Your task to perform on an android device: turn on bluetooth scan Image 0: 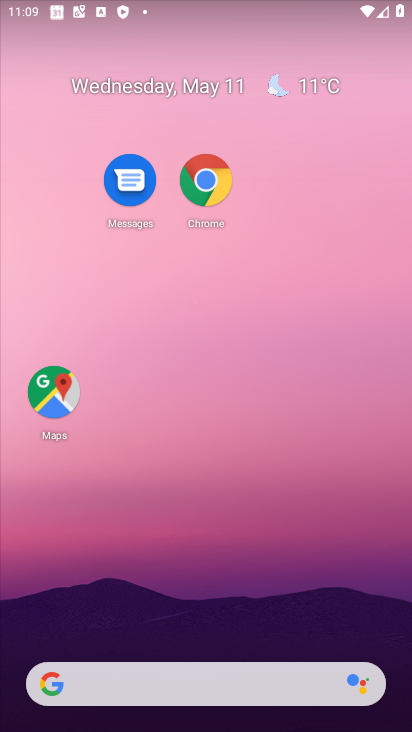
Step 0: drag from (246, 599) to (256, 226)
Your task to perform on an android device: turn on bluetooth scan Image 1: 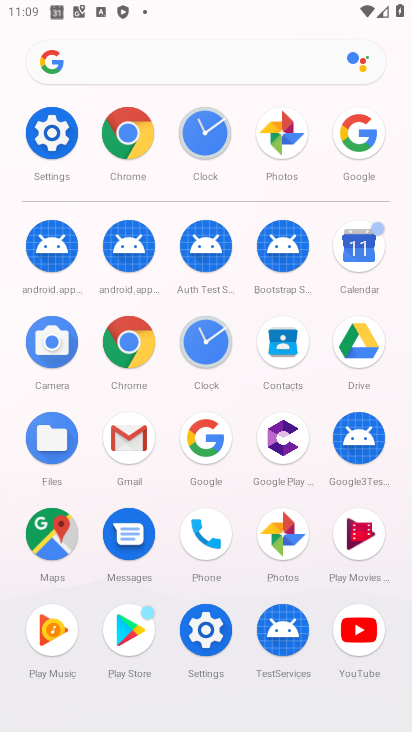
Step 1: click (194, 632)
Your task to perform on an android device: turn on bluetooth scan Image 2: 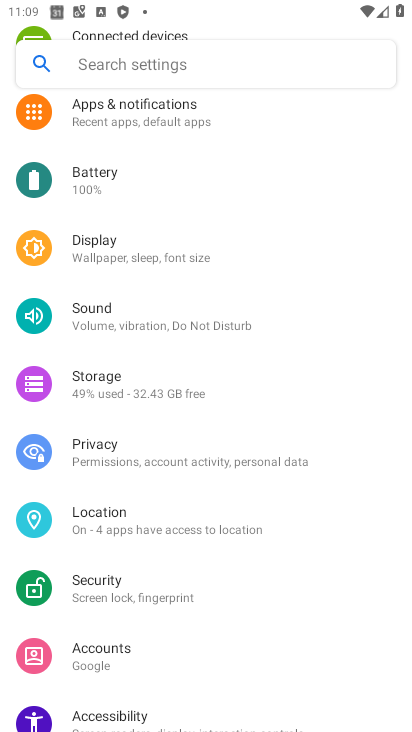
Step 2: drag from (168, 297) to (177, 194)
Your task to perform on an android device: turn on bluetooth scan Image 3: 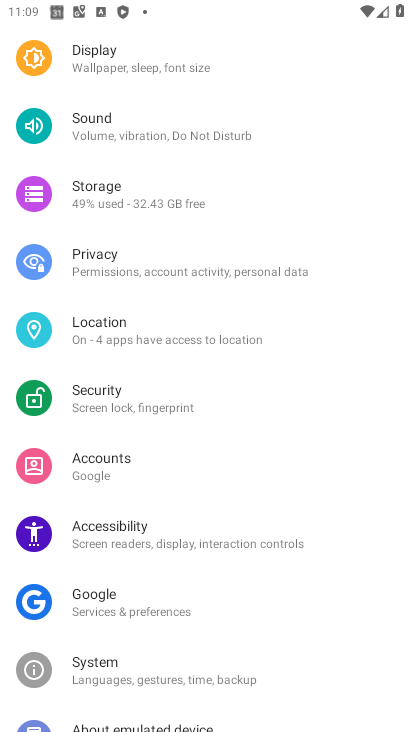
Step 3: click (141, 343)
Your task to perform on an android device: turn on bluetooth scan Image 4: 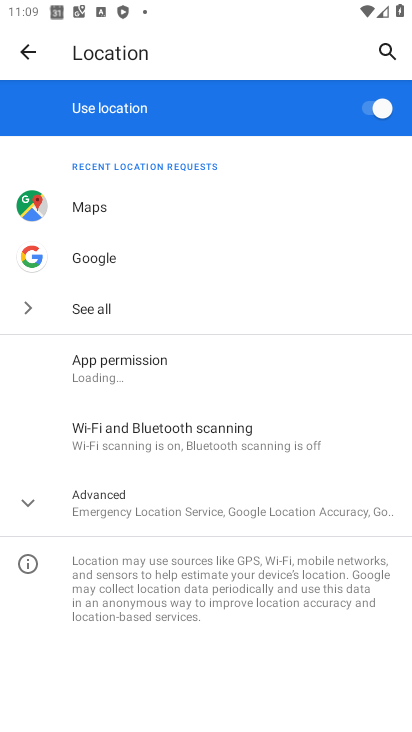
Step 4: click (147, 452)
Your task to perform on an android device: turn on bluetooth scan Image 5: 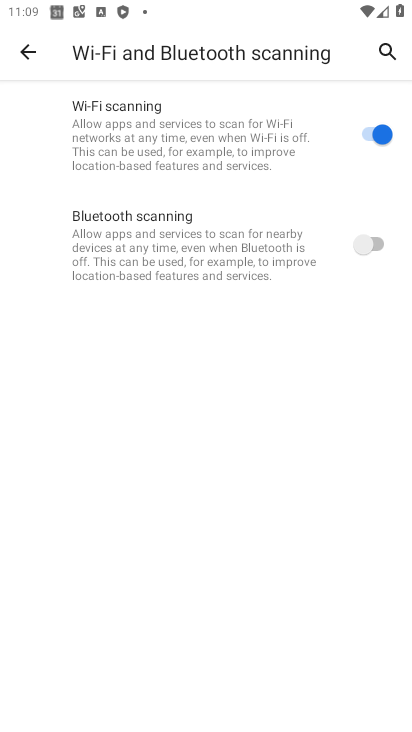
Step 5: click (354, 246)
Your task to perform on an android device: turn on bluetooth scan Image 6: 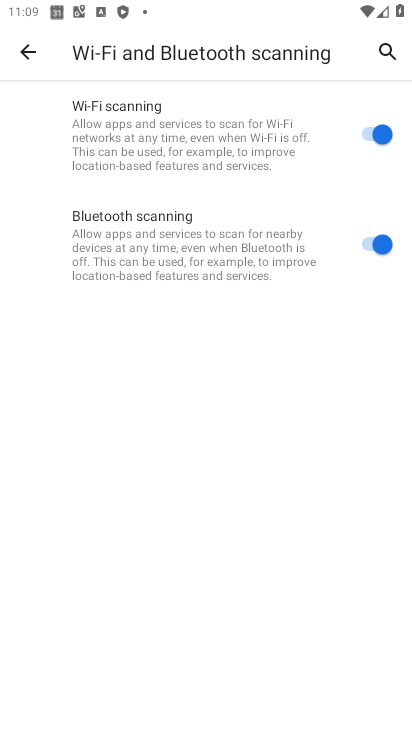
Step 6: task complete